Your task to perform on an android device: change the upload size in google photos Image 0: 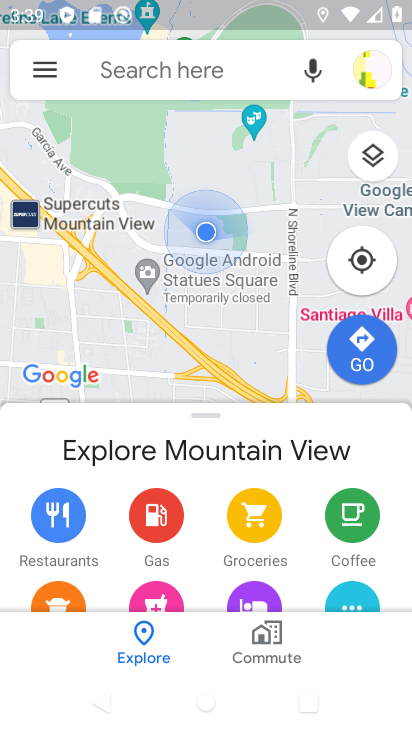
Step 0: press home button
Your task to perform on an android device: change the upload size in google photos Image 1: 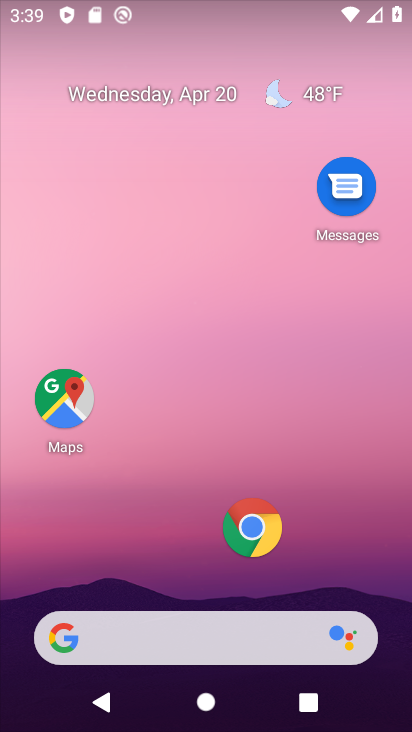
Step 1: drag from (177, 614) to (332, 154)
Your task to perform on an android device: change the upload size in google photos Image 2: 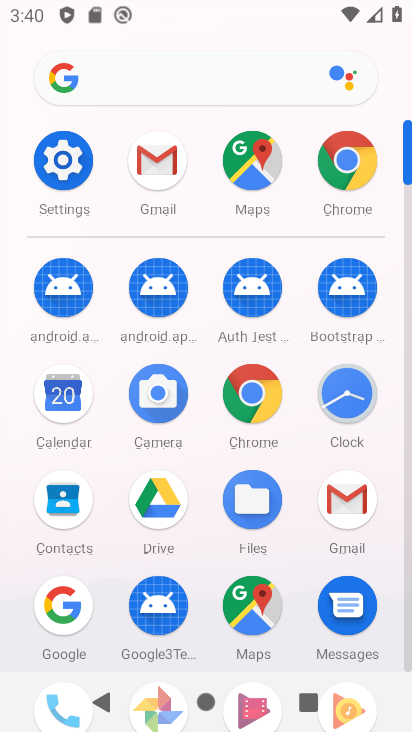
Step 2: drag from (209, 601) to (339, 156)
Your task to perform on an android device: change the upload size in google photos Image 3: 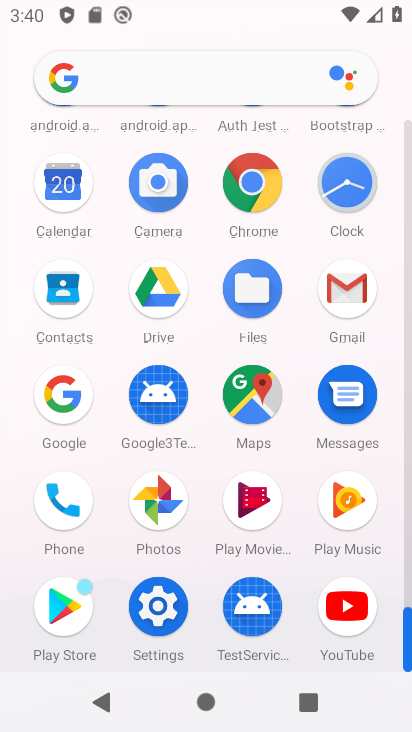
Step 3: click (155, 502)
Your task to perform on an android device: change the upload size in google photos Image 4: 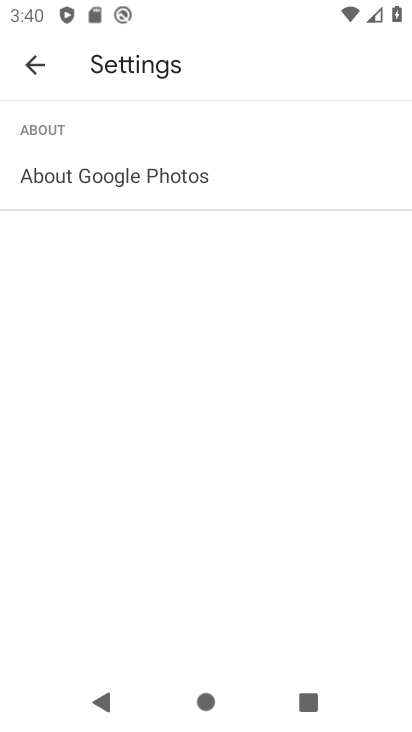
Step 4: click (36, 66)
Your task to perform on an android device: change the upload size in google photos Image 5: 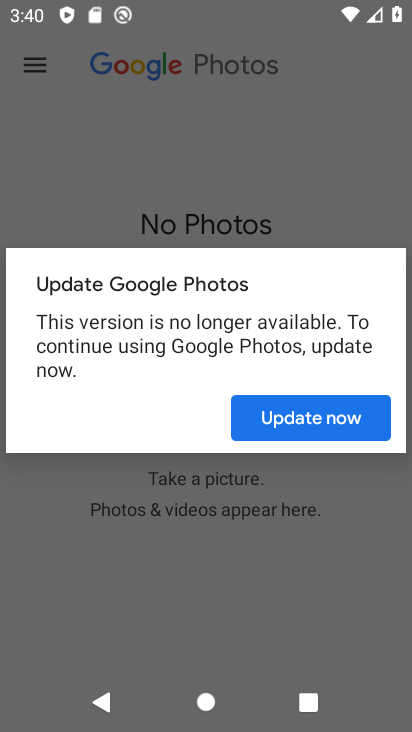
Step 5: click (261, 423)
Your task to perform on an android device: change the upload size in google photos Image 6: 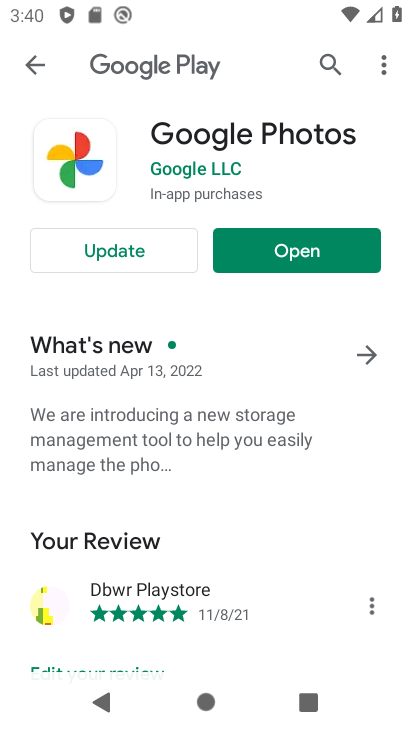
Step 6: click (297, 257)
Your task to perform on an android device: change the upload size in google photos Image 7: 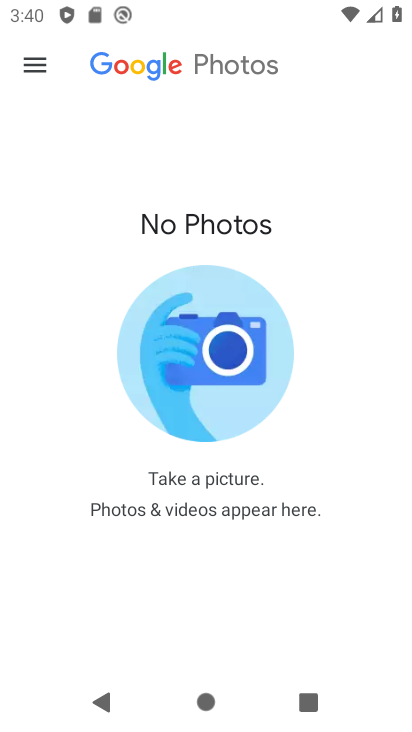
Step 7: click (36, 63)
Your task to perform on an android device: change the upload size in google photos Image 8: 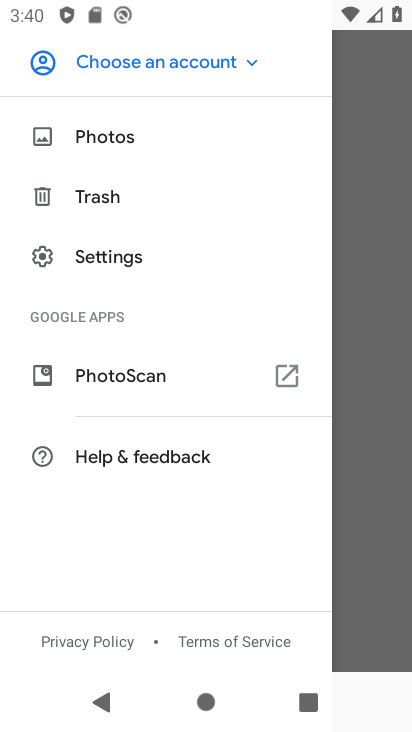
Step 8: click (113, 260)
Your task to perform on an android device: change the upload size in google photos Image 9: 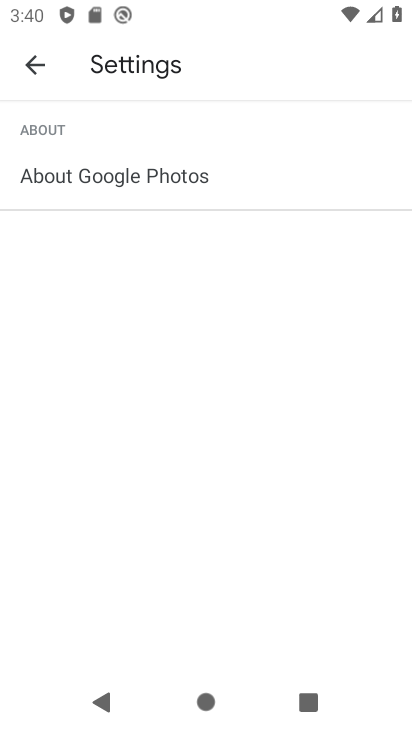
Step 9: click (154, 183)
Your task to perform on an android device: change the upload size in google photos Image 10: 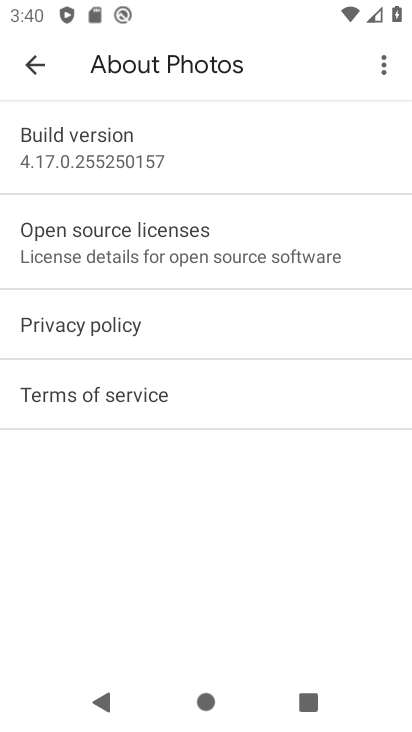
Step 10: click (46, 64)
Your task to perform on an android device: change the upload size in google photos Image 11: 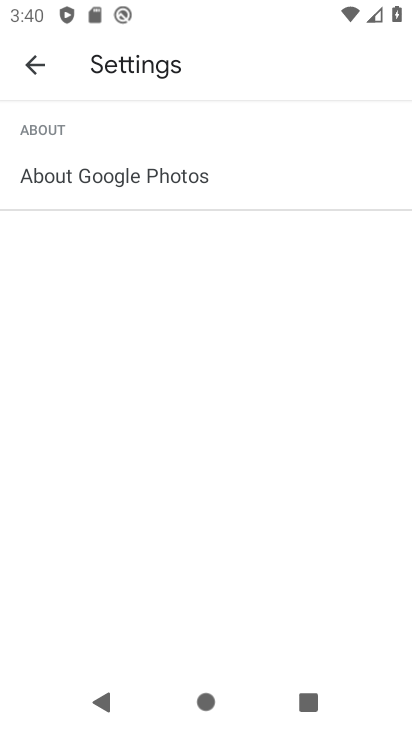
Step 11: click (46, 64)
Your task to perform on an android device: change the upload size in google photos Image 12: 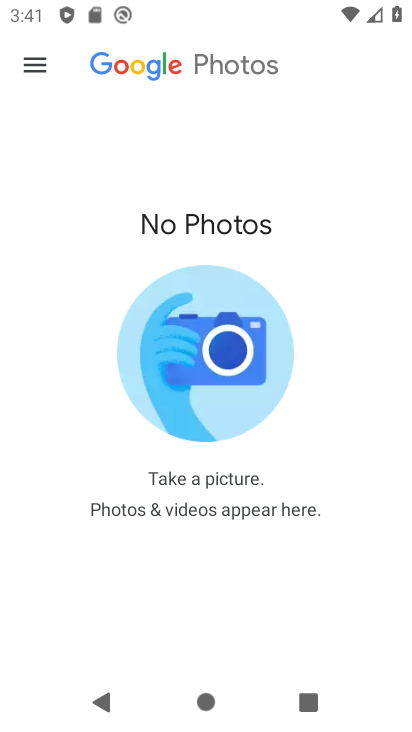
Step 12: click (46, 64)
Your task to perform on an android device: change the upload size in google photos Image 13: 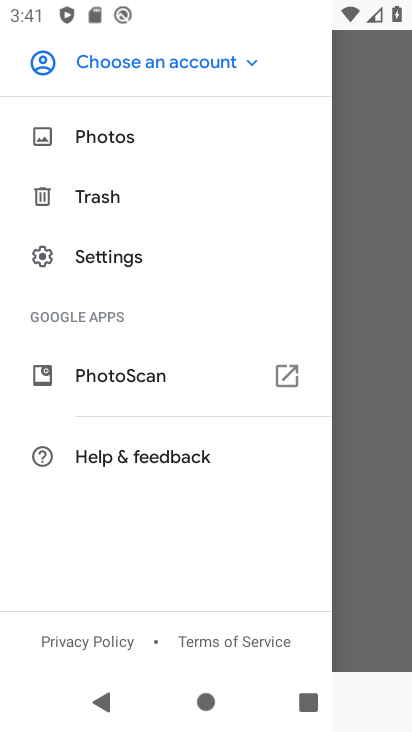
Step 13: click (94, 252)
Your task to perform on an android device: change the upload size in google photos Image 14: 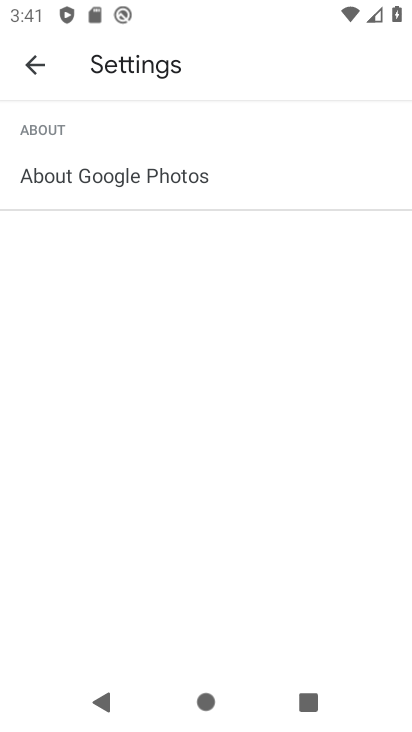
Step 14: task complete